Your task to perform on an android device: Go to privacy settings Image 0: 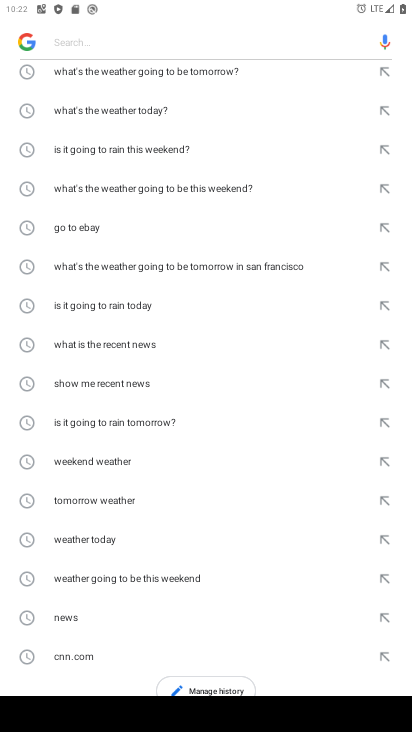
Step 0: press home button
Your task to perform on an android device: Go to privacy settings Image 1: 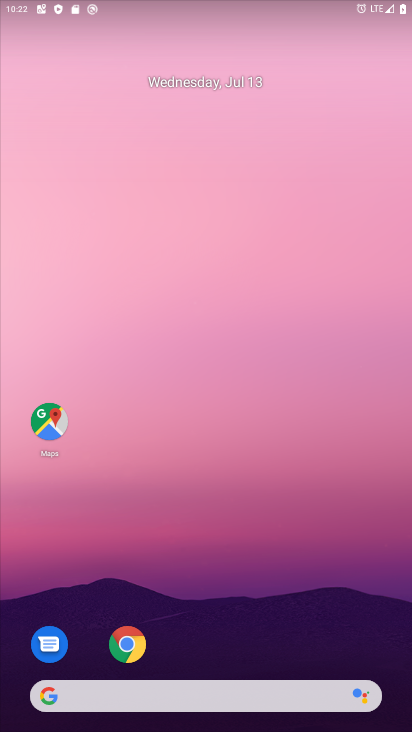
Step 1: drag from (248, 693) to (246, 275)
Your task to perform on an android device: Go to privacy settings Image 2: 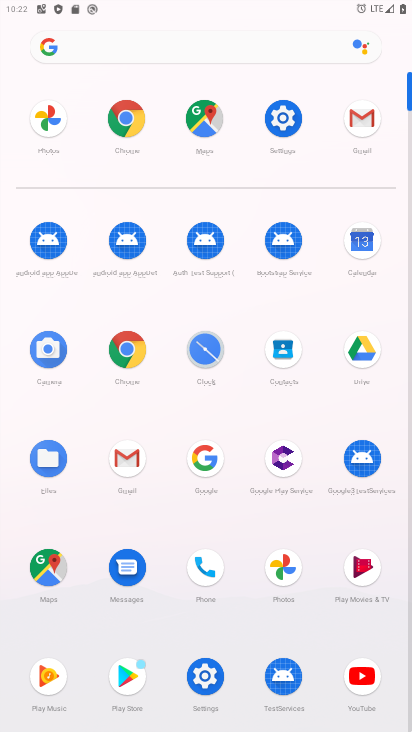
Step 2: click (290, 115)
Your task to perform on an android device: Go to privacy settings Image 3: 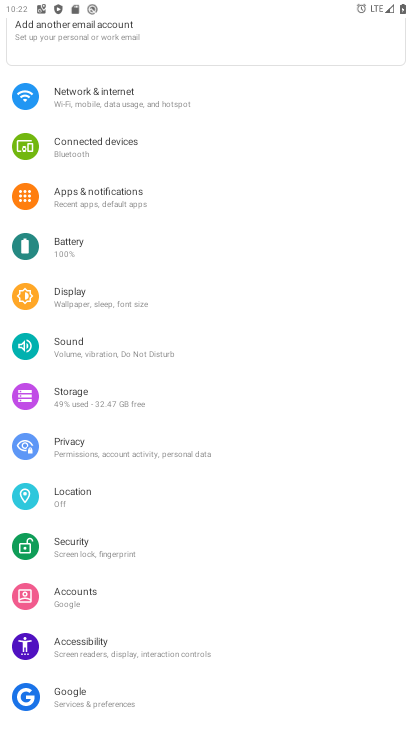
Step 3: drag from (110, 606) to (110, 233)
Your task to perform on an android device: Go to privacy settings Image 4: 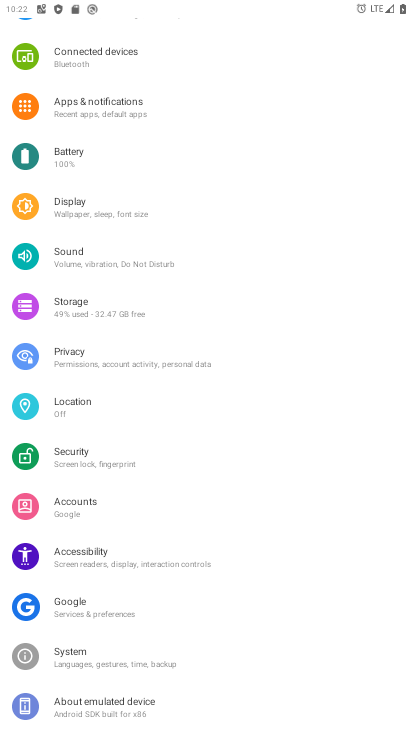
Step 4: drag from (96, 157) to (95, 415)
Your task to perform on an android device: Go to privacy settings Image 5: 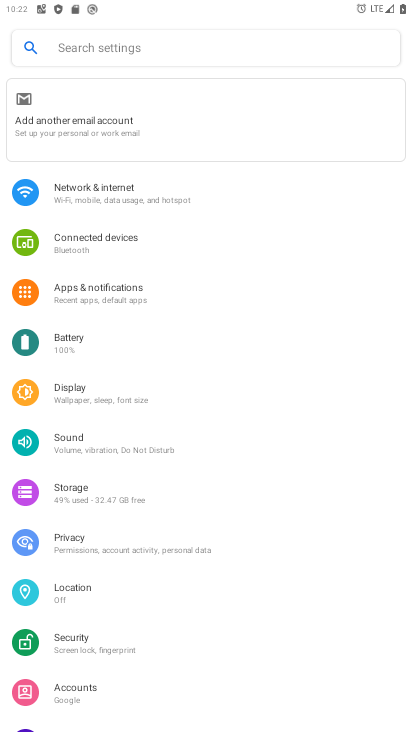
Step 5: click (62, 541)
Your task to perform on an android device: Go to privacy settings Image 6: 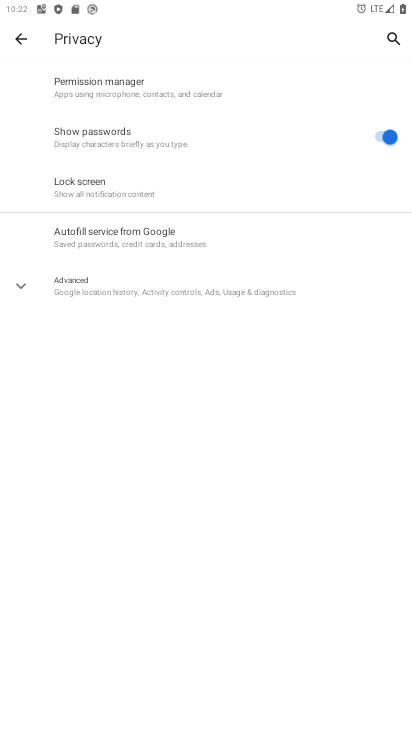
Step 6: task complete